Your task to perform on an android device: What's the weather going to be this weekend? Image 0: 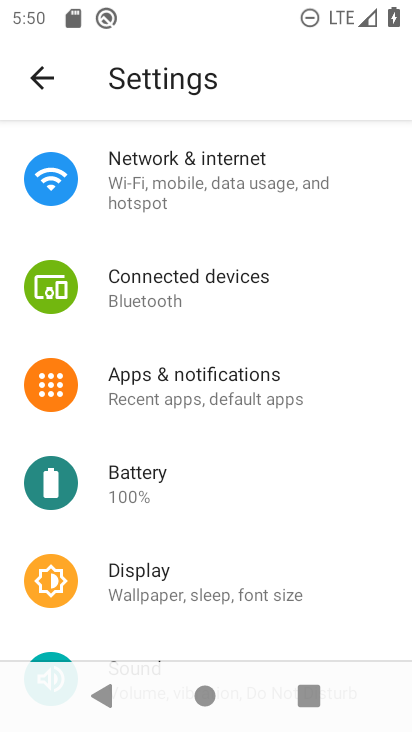
Step 0: press home button
Your task to perform on an android device: What's the weather going to be this weekend? Image 1: 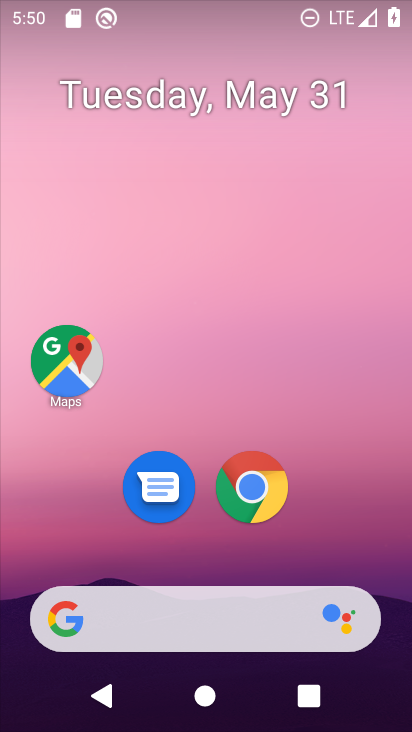
Step 1: click (205, 622)
Your task to perform on an android device: What's the weather going to be this weekend? Image 2: 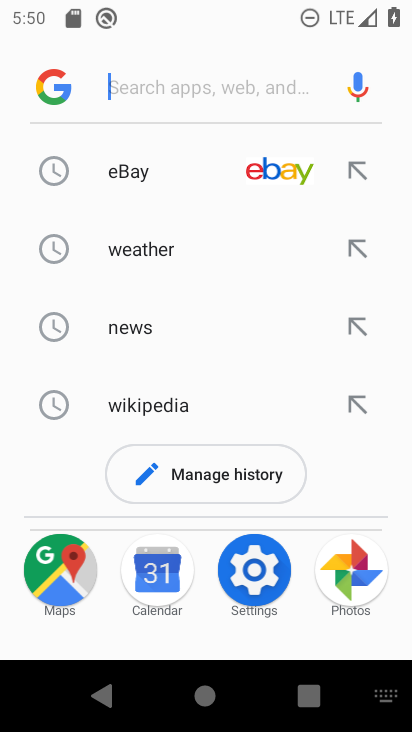
Step 2: click (162, 250)
Your task to perform on an android device: What's the weather going to be this weekend? Image 3: 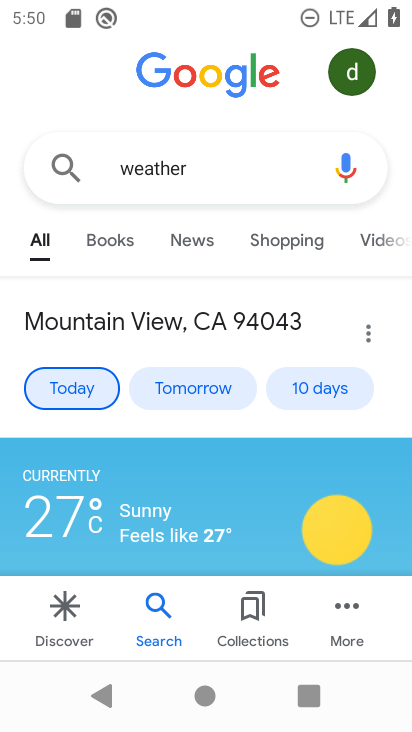
Step 3: click (311, 382)
Your task to perform on an android device: What's the weather going to be this weekend? Image 4: 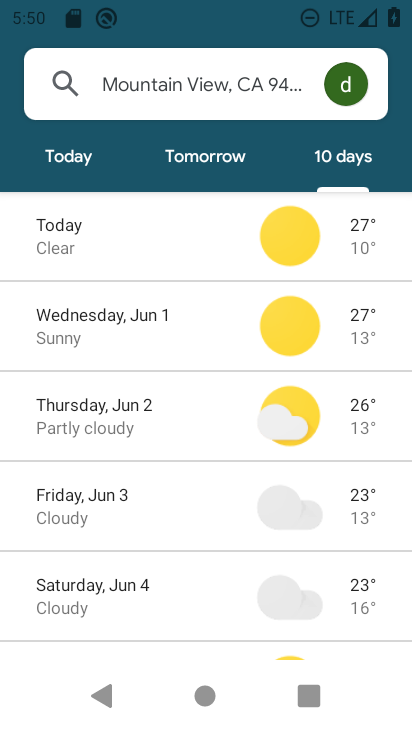
Step 4: task complete